Your task to perform on an android device: What's on my calendar today? Image 0: 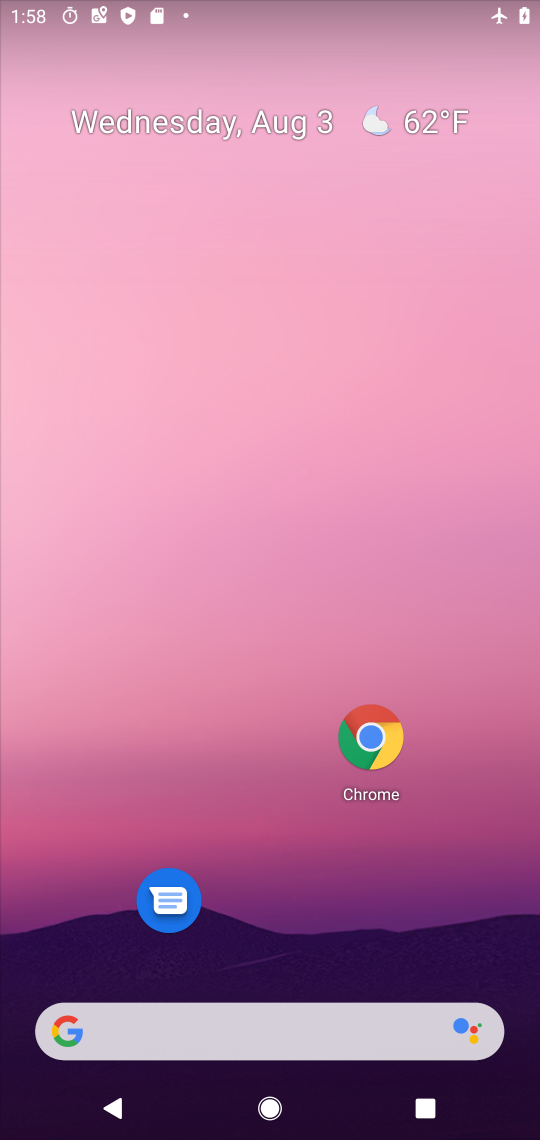
Step 0: drag from (393, 924) to (299, 70)
Your task to perform on an android device: What's on my calendar today? Image 1: 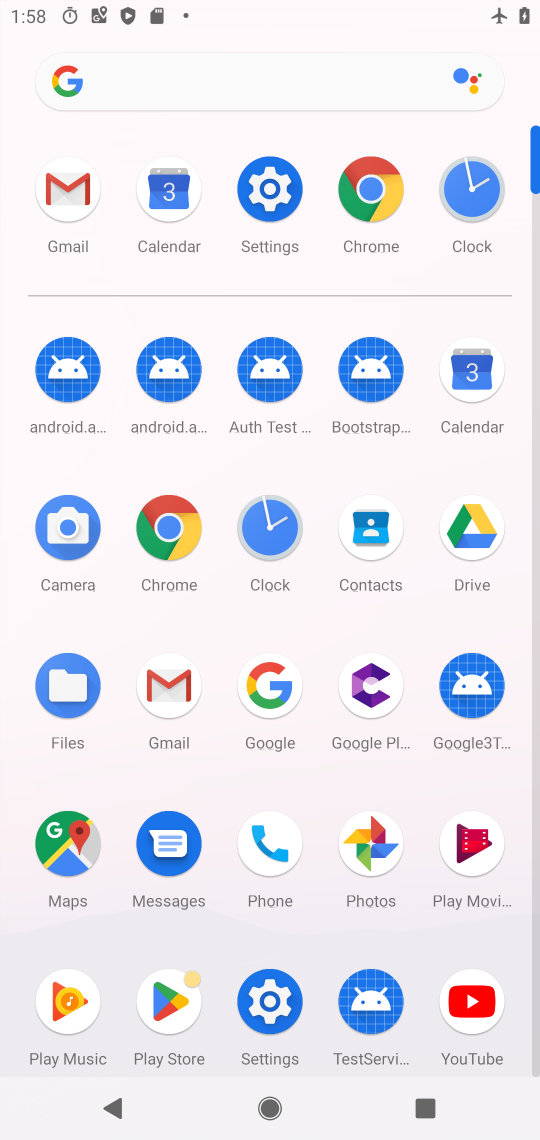
Step 1: click (471, 382)
Your task to perform on an android device: What's on my calendar today? Image 2: 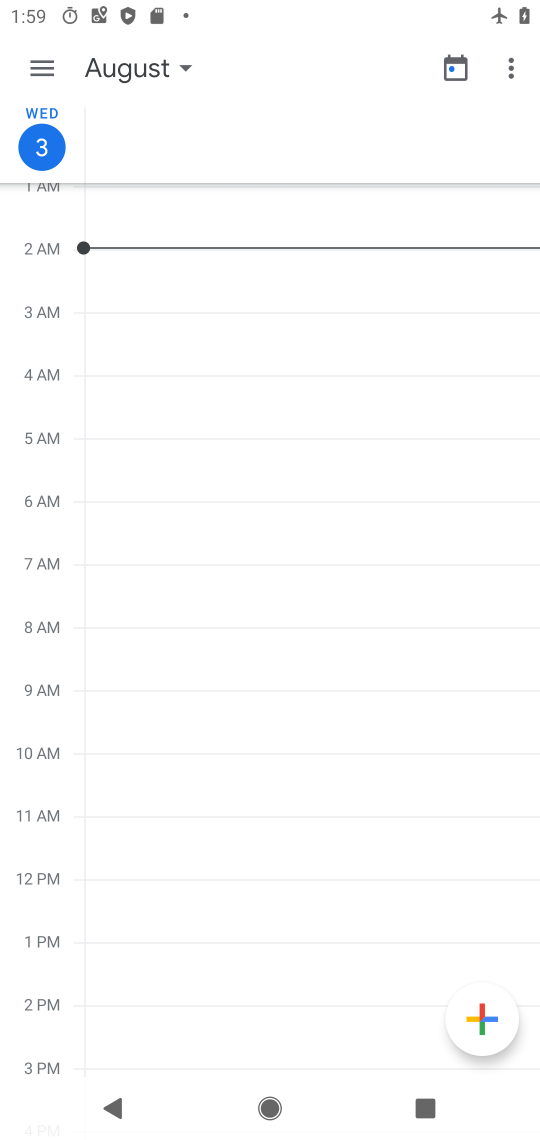
Step 2: task complete